Your task to perform on an android device: turn off location history Image 0: 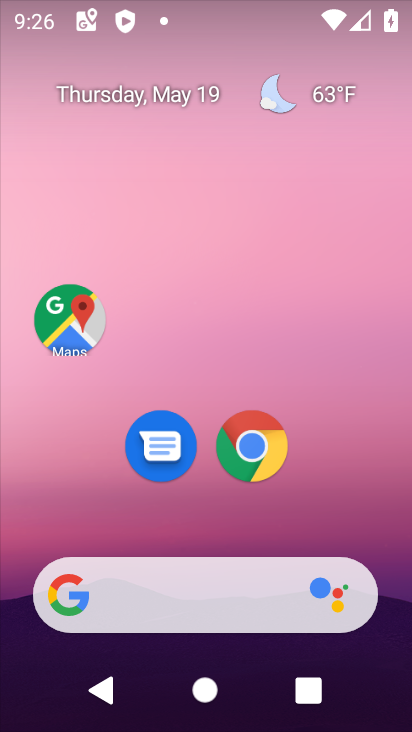
Step 0: drag from (206, 521) to (279, 101)
Your task to perform on an android device: turn off location history Image 1: 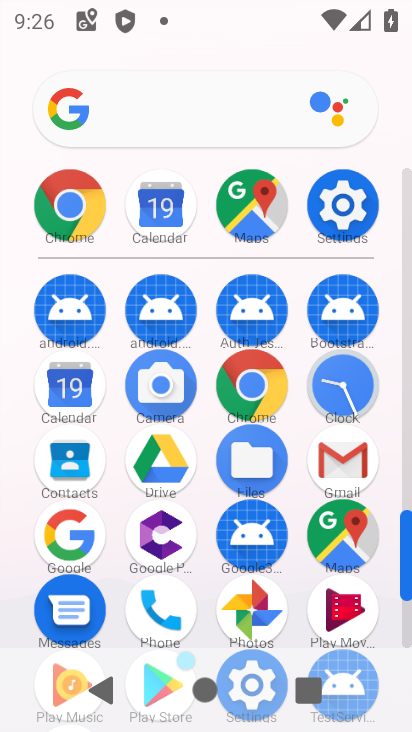
Step 1: click (345, 200)
Your task to perform on an android device: turn off location history Image 2: 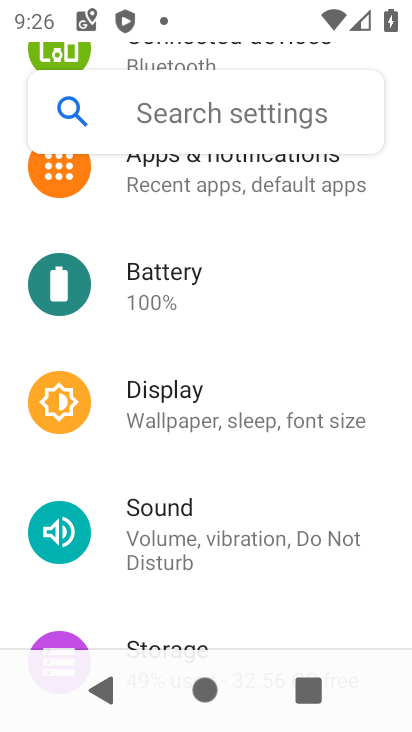
Step 2: drag from (216, 331) to (256, 38)
Your task to perform on an android device: turn off location history Image 3: 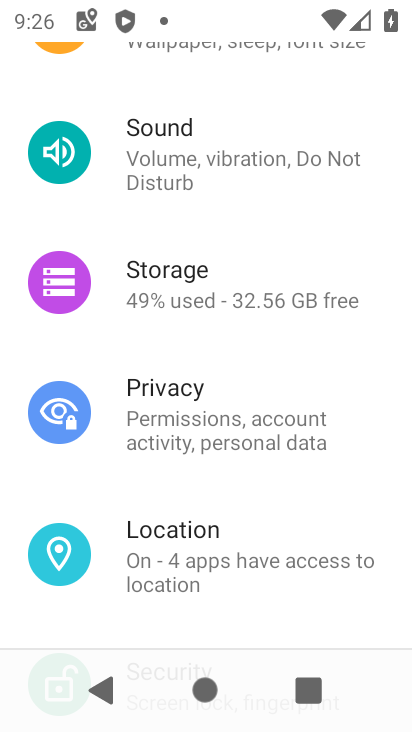
Step 3: click (215, 557)
Your task to perform on an android device: turn off location history Image 4: 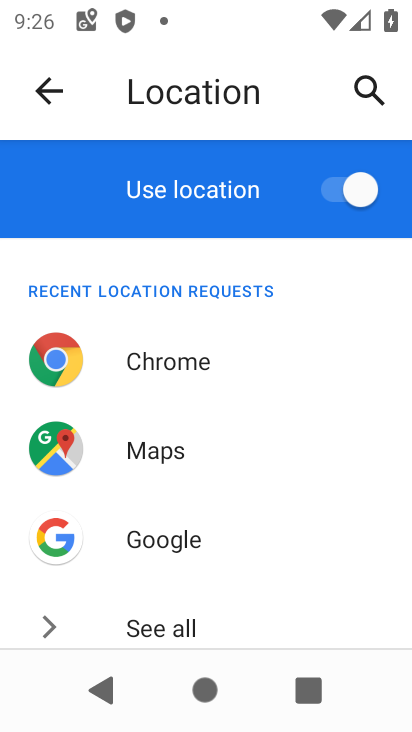
Step 4: drag from (154, 556) to (200, 252)
Your task to perform on an android device: turn off location history Image 5: 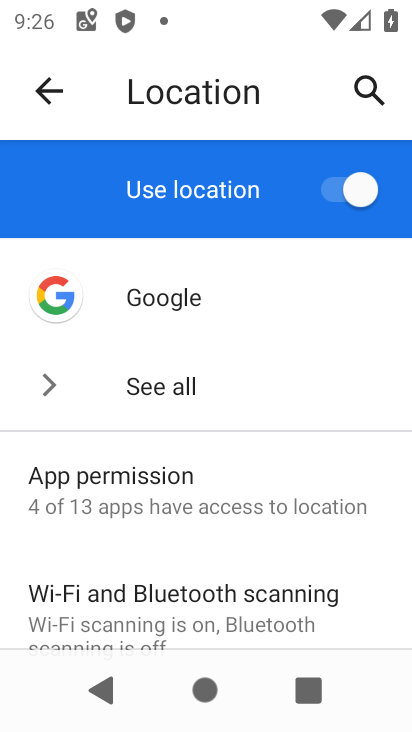
Step 5: drag from (173, 582) to (219, 290)
Your task to perform on an android device: turn off location history Image 6: 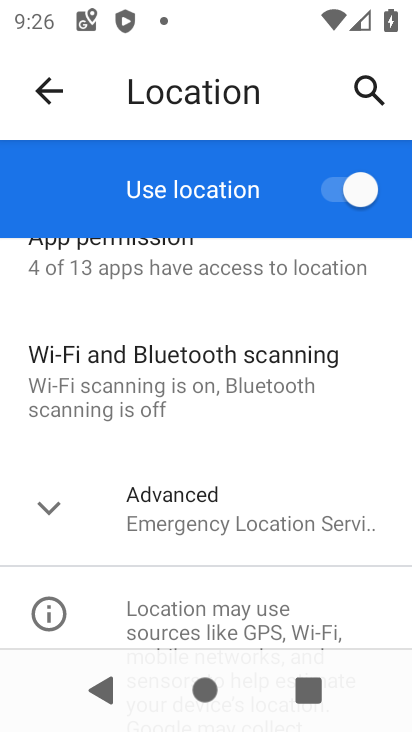
Step 6: click (172, 524)
Your task to perform on an android device: turn off location history Image 7: 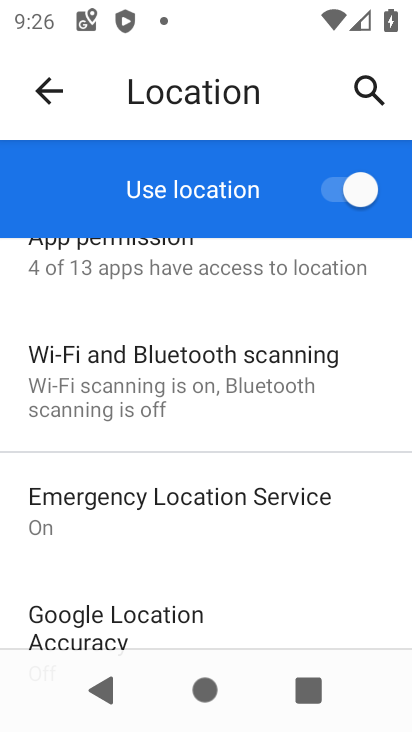
Step 7: drag from (142, 602) to (207, 337)
Your task to perform on an android device: turn off location history Image 8: 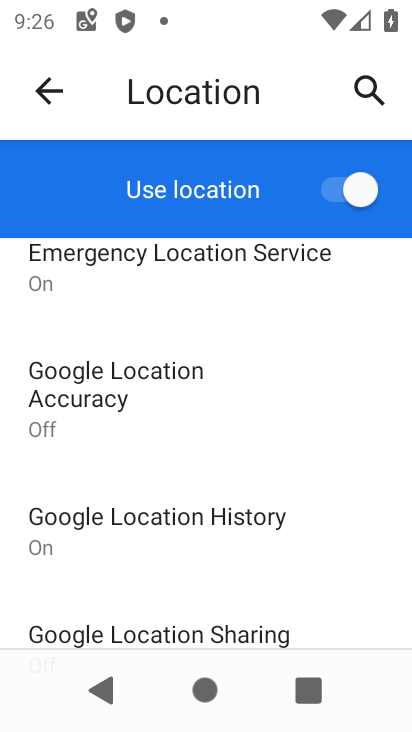
Step 8: click (187, 533)
Your task to perform on an android device: turn off location history Image 9: 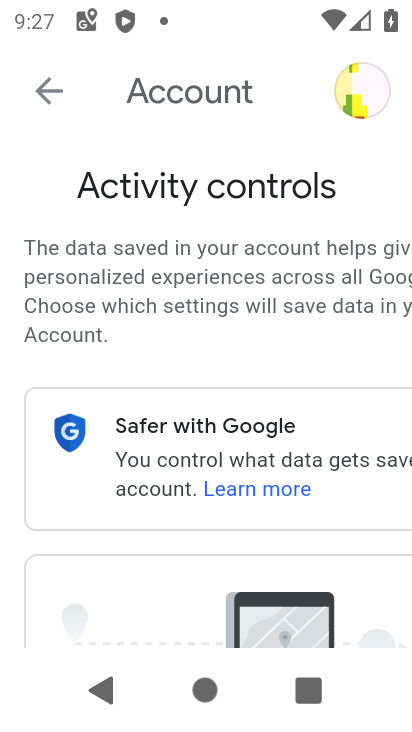
Step 9: task complete